Your task to perform on an android device: Go to Google maps Image 0: 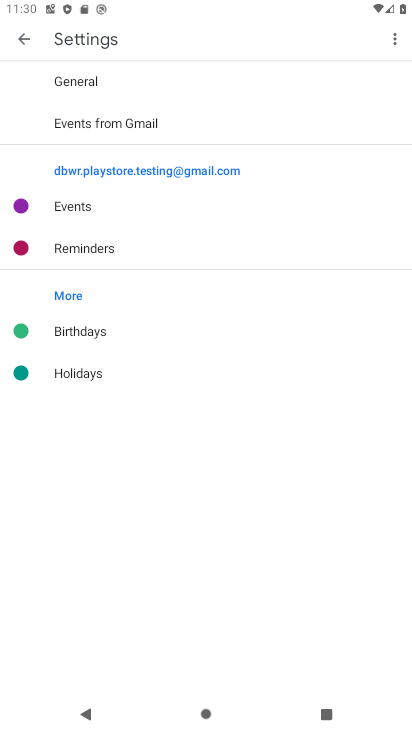
Step 0: press home button
Your task to perform on an android device: Go to Google maps Image 1: 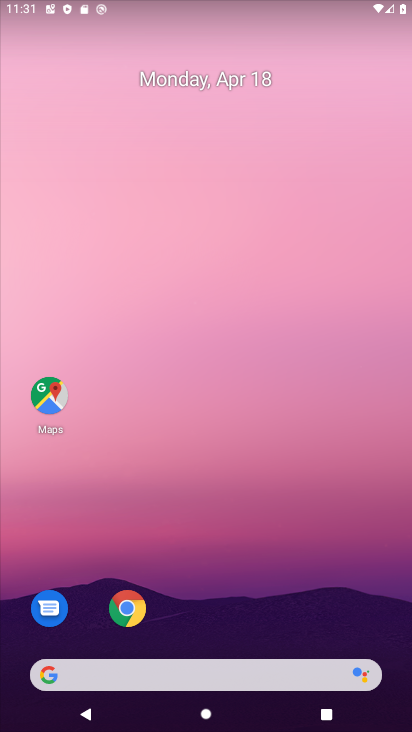
Step 1: drag from (283, 532) to (299, 55)
Your task to perform on an android device: Go to Google maps Image 2: 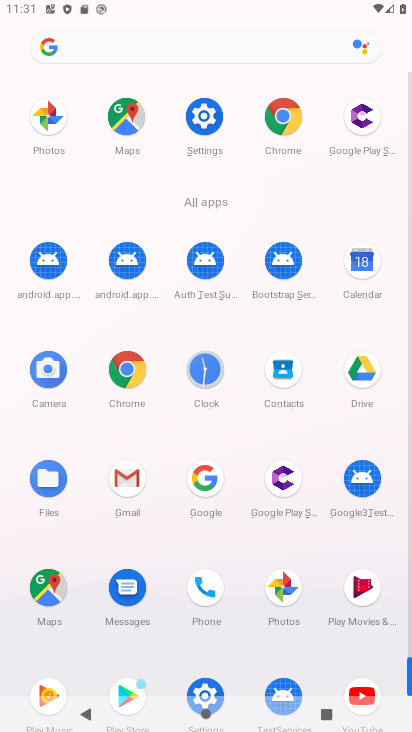
Step 2: click (126, 121)
Your task to perform on an android device: Go to Google maps Image 3: 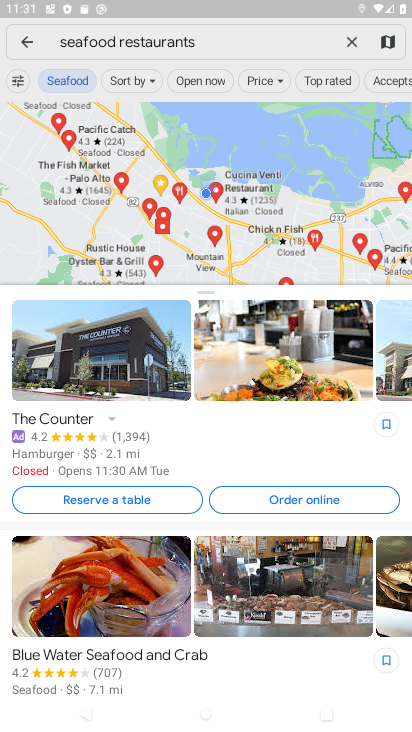
Step 3: task complete